Your task to perform on an android device: Open calendar and show me the third week of next month Image 0: 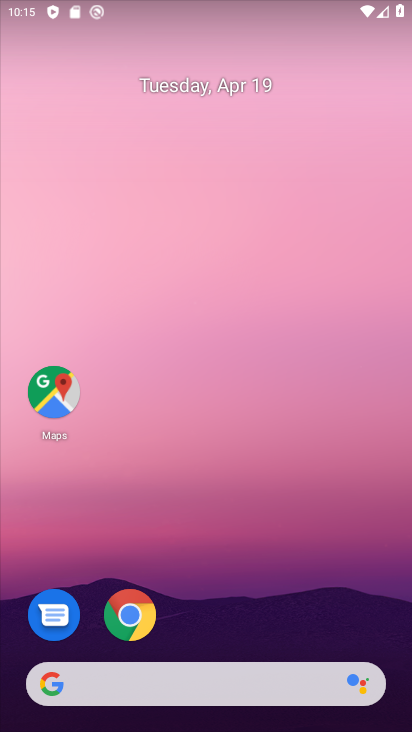
Step 0: drag from (200, 586) to (259, 76)
Your task to perform on an android device: Open calendar and show me the third week of next month Image 1: 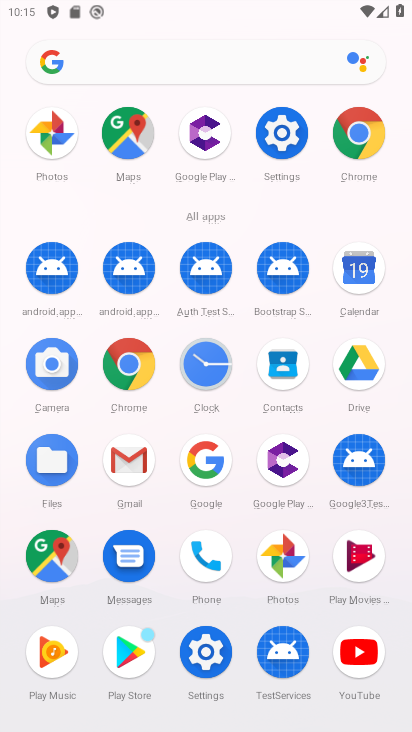
Step 1: click (362, 270)
Your task to perform on an android device: Open calendar and show me the third week of next month Image 2: 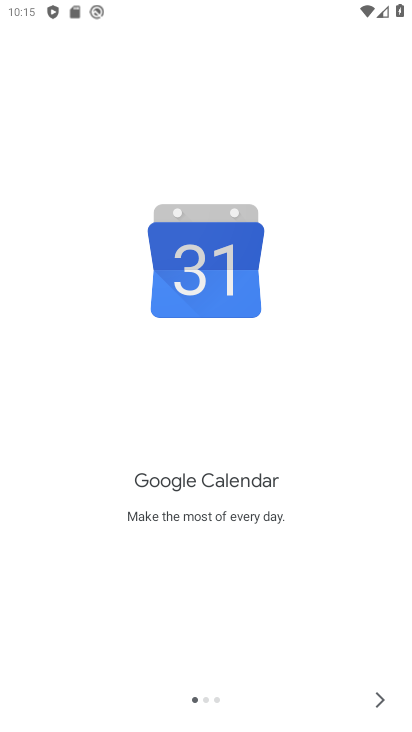
Step 2: click (378, 697)
Your task to perform on an android device: Open calendar and show me the third week of next month Image 3: 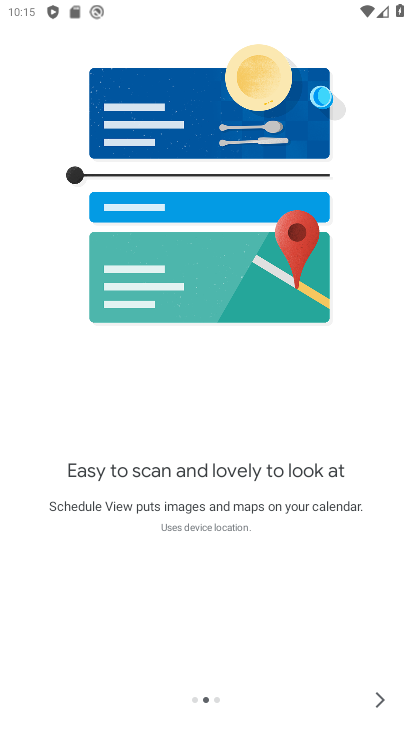
Step 3: click (384, 698)
Your task to perform on an android device: Open calendar and show me the third week of next month Image 4: 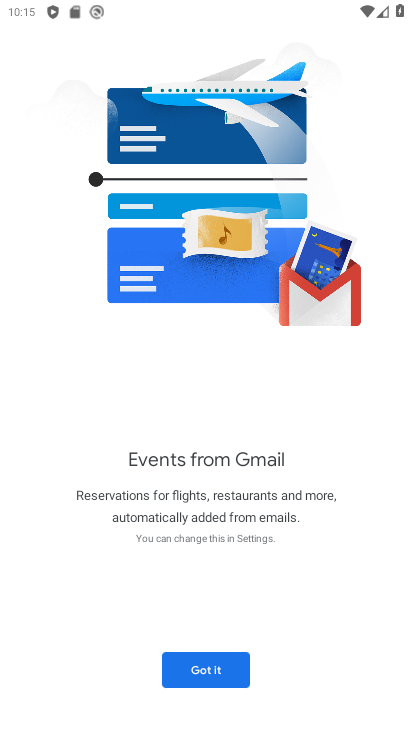
Step 4: click (203, 673)
Your task to perform on an android device: Open calendar and show me the third week of next month Image 5: 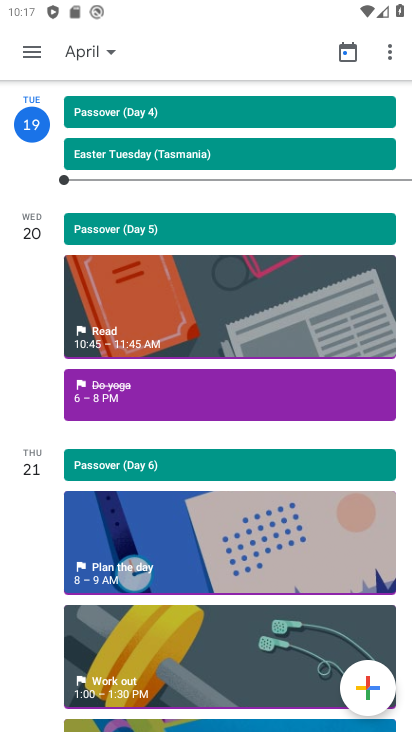
Step 5: click (113, 51)
Your task to perform on an android device: Open calendar and show me the third week of next month Image 6: 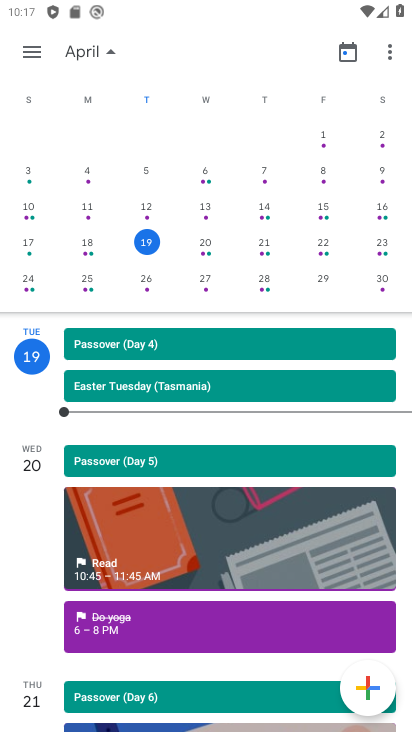
Step 6: drag from (392, 303) to (0, 272)
Your task to perform on an android device: Open calendar and show me the third week of next month Image 7: 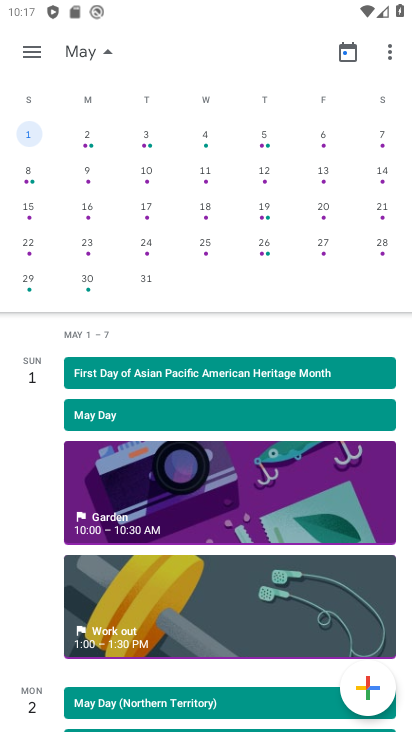
Step 7: click (142, 206)
Your task to perform on an android device: Open calendar and show me the third week of next month Image 8: 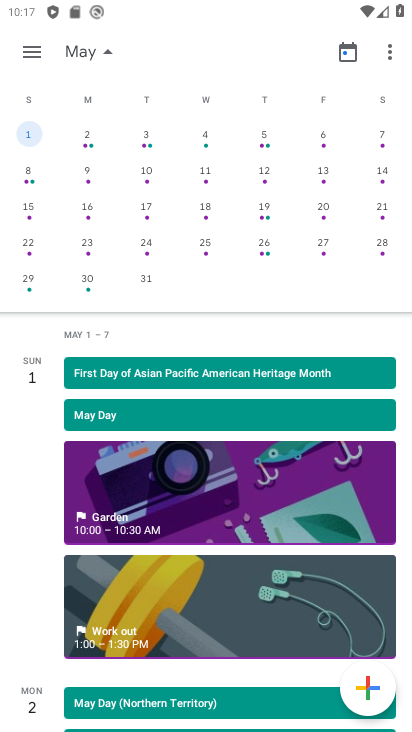
Step 8: click (145, 206)
Your task to perform on an android device: Open calendar and show me the third week of next month Image 9: 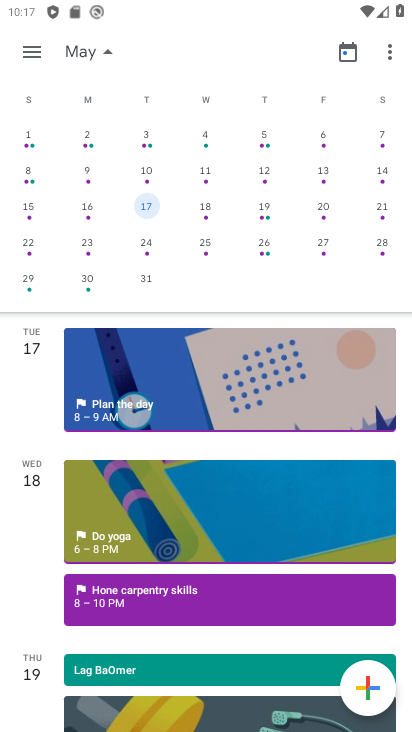
Step 9: task complete